Your task to perform on an android device: clear history in the chrome app Image 0: 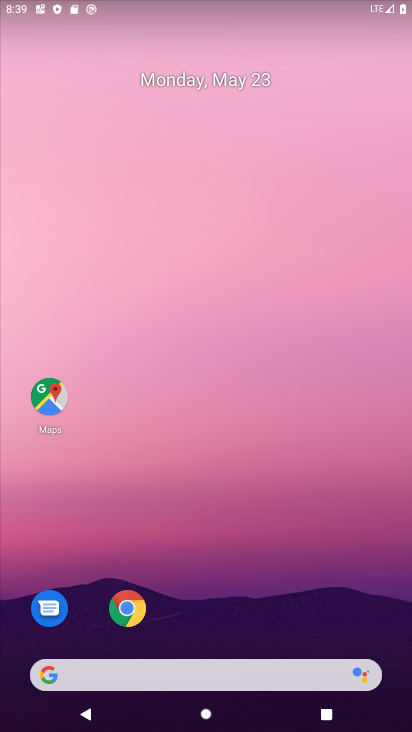
Step 0: click (132, 613)
Your task to perform on an android device: clear history in the chrome app Image 1: 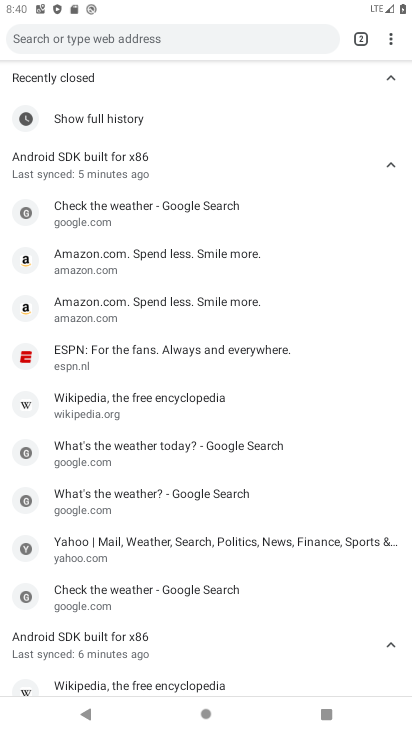
Step 1: click (388, 39)
Your task to perform on an android device: clear history in the chrome app Image 2: 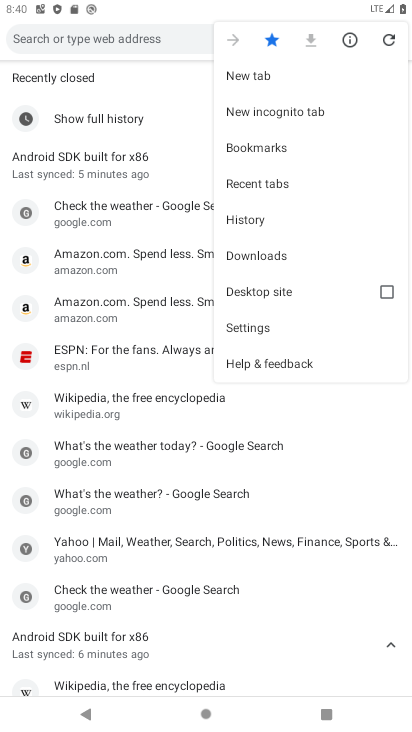
Step 2: click (253, 221)
Your task to perform on an android device: clear history in the chrome app Image 3: 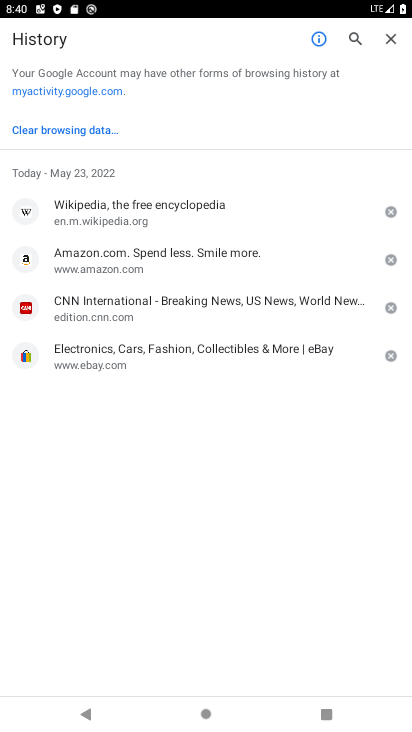
Step 3: click (59, 123)
Your task to perform on an android device: clear history in the chrome app Image 4: 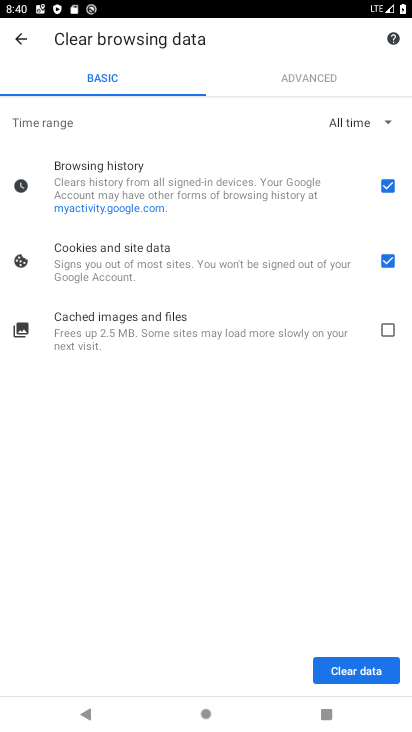
Step 4: click (342, 662)
Your task to perform on an android device: clear history in the chrome app Image 5: 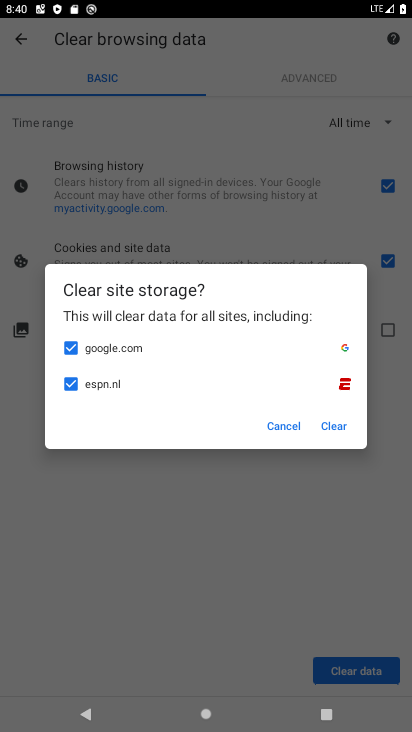
Step 5: click (334, 428)
Your task to perform on an android device: clear history in the chrome app Image 6: 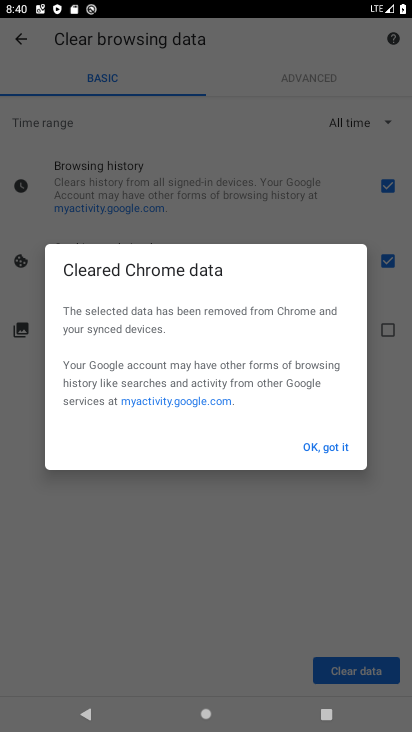
Step 6: click (319, 451)
Your task to perform on an android device: clear history in the chrome app Image 7: 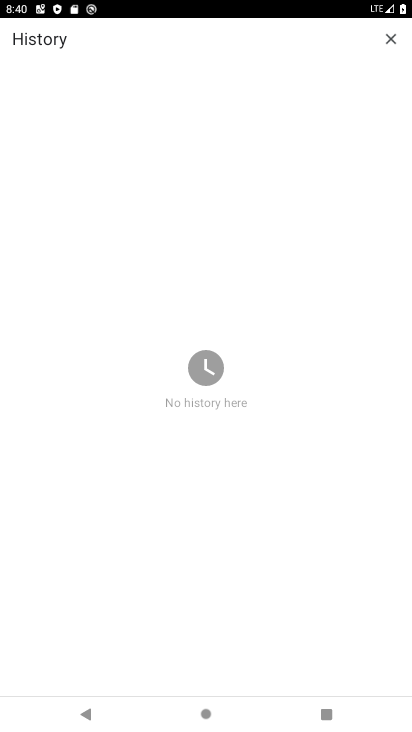
Step 7: task complete